Your task to perform on an android device: remove spam from my inbox in the gmail app Image 0: 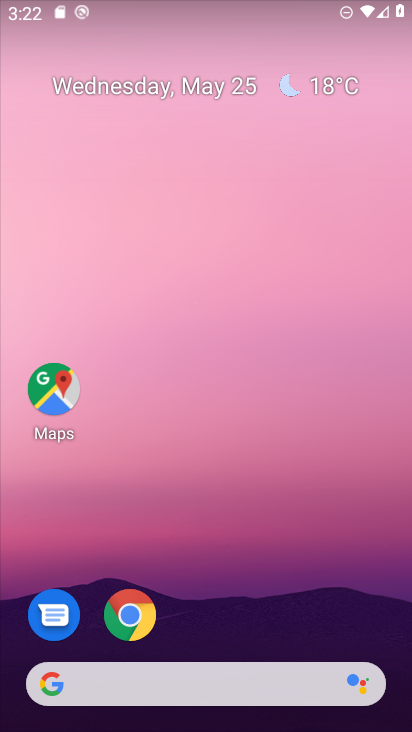
Step 0: drag from (202, 595) to (265, 13)
Your task to perform on an android device: remove spam from my inbox in the gmail app Image 1: 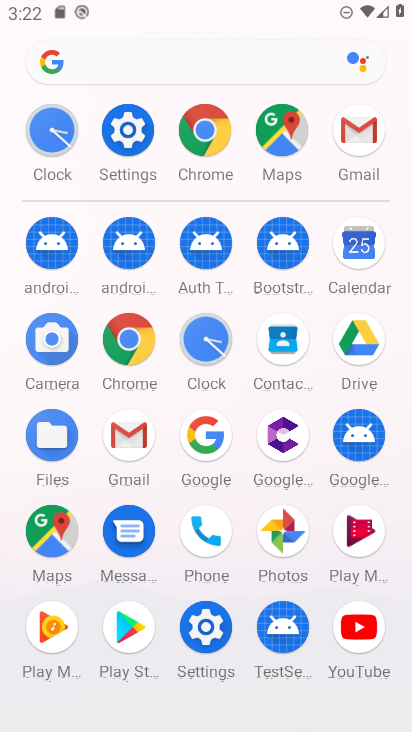
Step 1: click (361, 123)
Your task to perform on an android device: remove spam from my inbox in the gmail app Image 2: 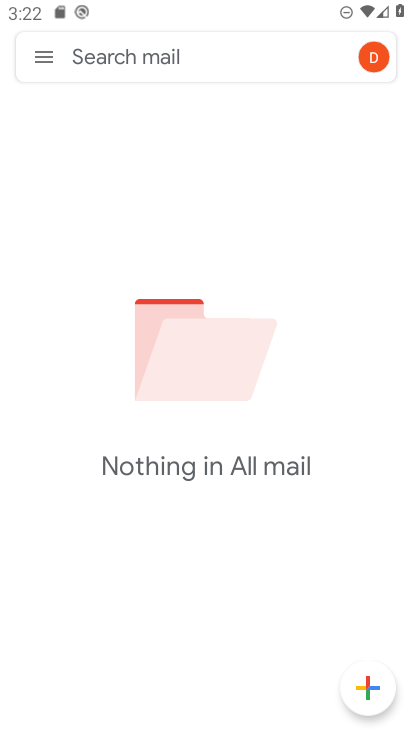
Step 2: click (44, 57)
Your task to perform on an android device: remove spam from my inbox in the gmail app Image 3: 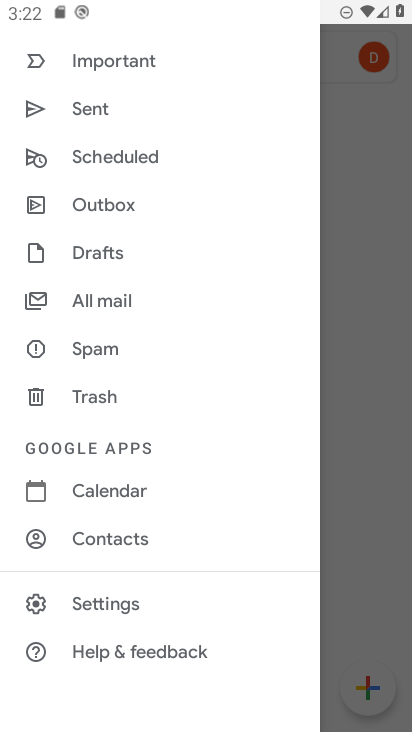
Step 3: click (118, 336)
Your task to perform on an android device: remove spam from my inbox in the gmail app Image 4: 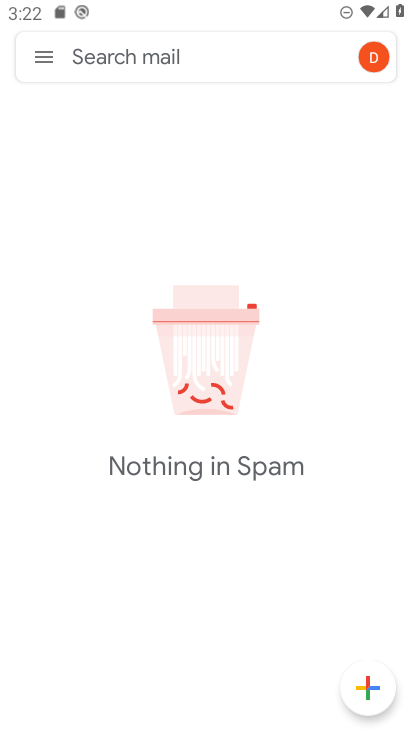
Step 4: task complete